Your task to perform on an android device: toggle pop-ups in chrome Image 0: 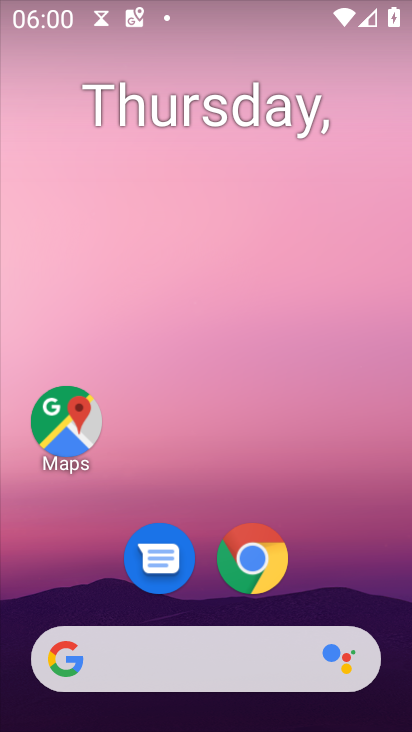
Step 0: drag from (313, 589) to (243, 135)
Your task to perform on an android device: toggle pop-ups in chrome Image 1: 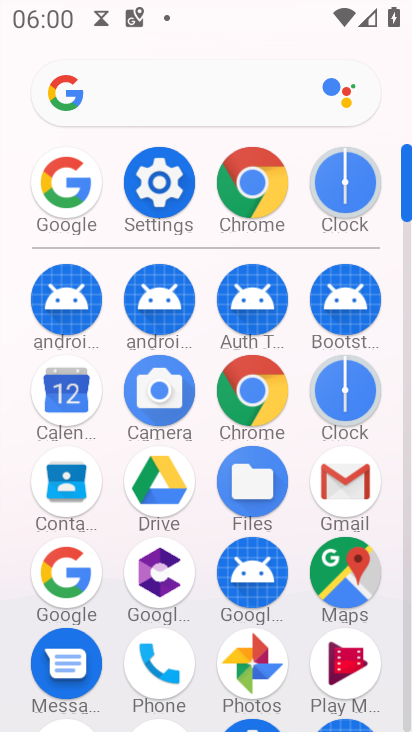
Step 1: click (245, 202)
Your task to perform on an android device: toggle pop-ups in chrome Image 2: 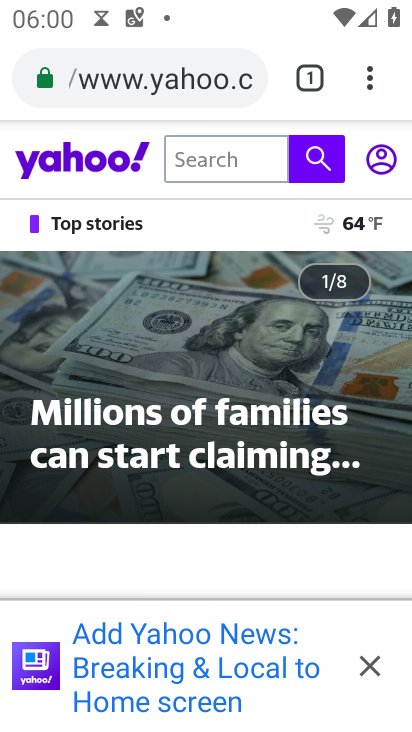
Step 2: click (367, 78)
Your task to perform on an android device: toggle pop-ups in chrome Image 3: 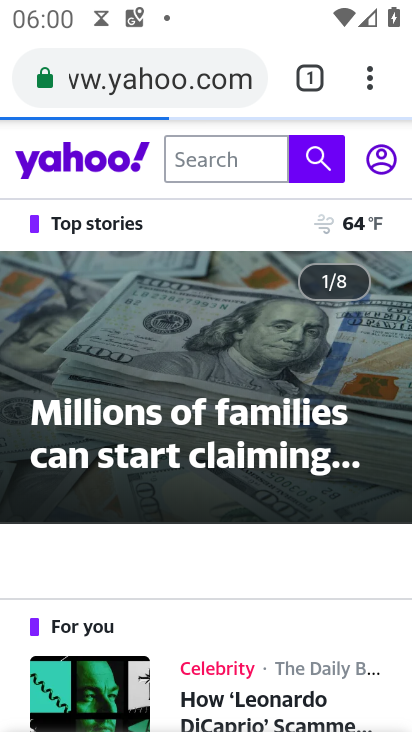
Step 3: click (369, 81)
Your task to perform on an android device: toggle pop-ups in chrome Image 4: 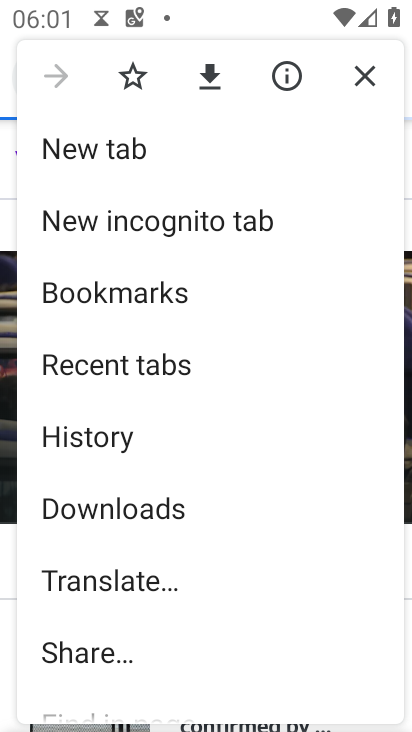
Step 4: drag from (162, 616) to (134, 291)
Your task to perform on an android device: toggle pop-ups in chrome Image 5: 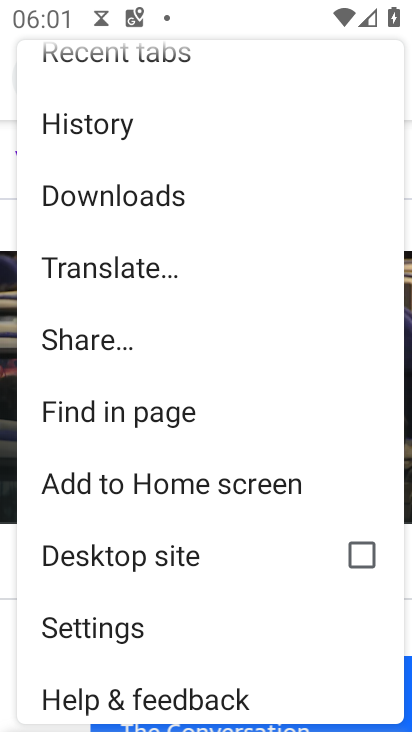
Step 5: click (110, 631)
Your task to perform on an android device: toggle pop-ups in chrome Image 6: 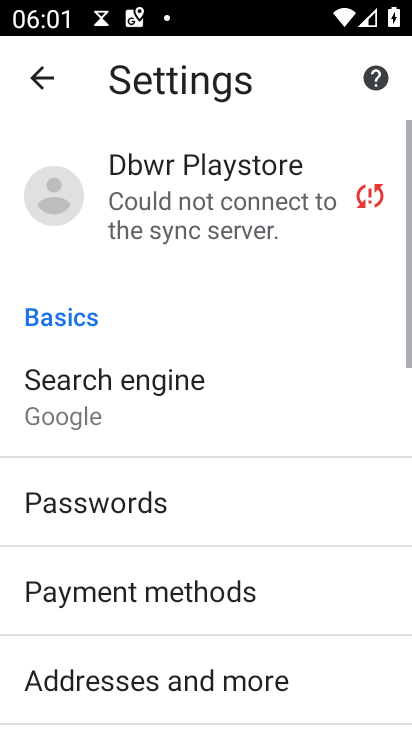
Step 6: drag from (110, 687) to (130, 299)
Your task to perform on an android device: toggle pop-ups in chrome Image 7: 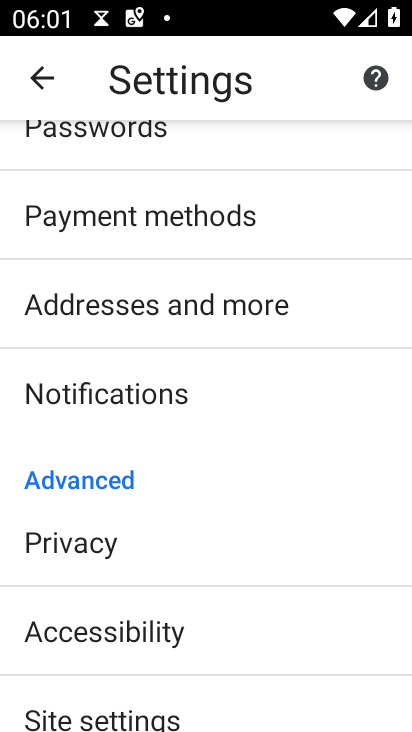
Step 7: drag from (160, 651) to (180, 345)
Your task to perform on an android device: toggle pop-ups in chrome Image 8: 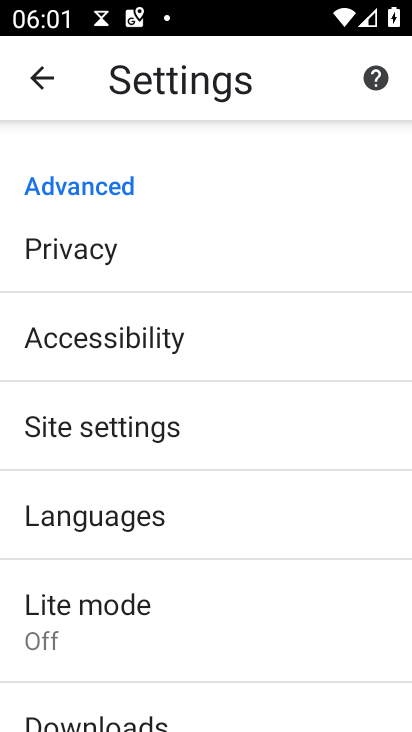
Step 8: click (95, 430)
Your task to perform on an android device: toggle pop-ups in chrome Image 9: 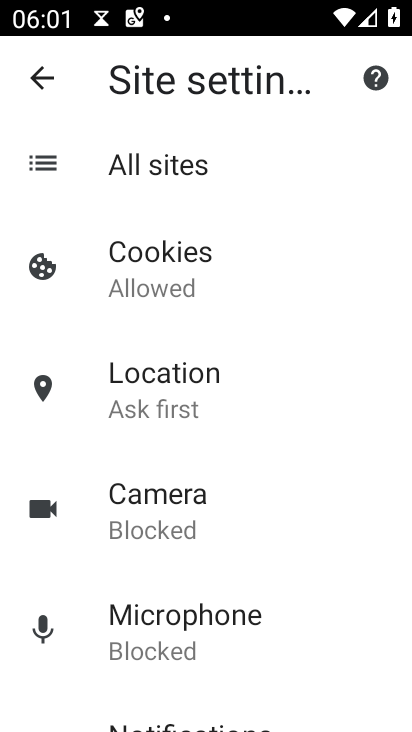
Step 9: drag from (210, 660) to (214, 270)
Your task to perform on an android device: toggle pop-ups in chrome Image 10: 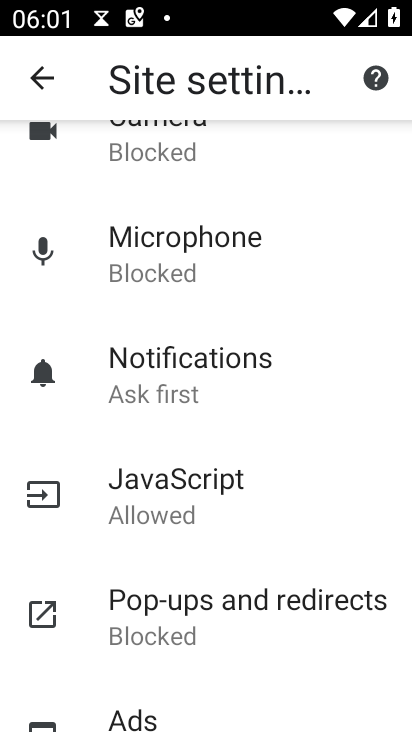
Step 10: click (212, 619)
Your task to perform on an android device: toggle pop-ups in chrome Image 11: 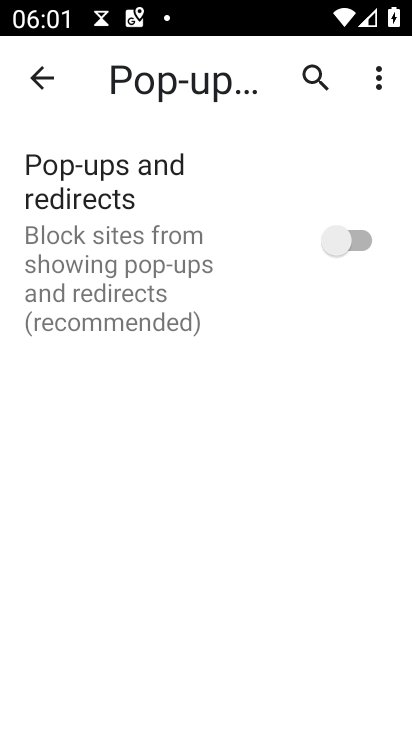
Step 11: click (366, 240)
Your task to perform on an android device: toggle pop-ups in chrome Image 12: 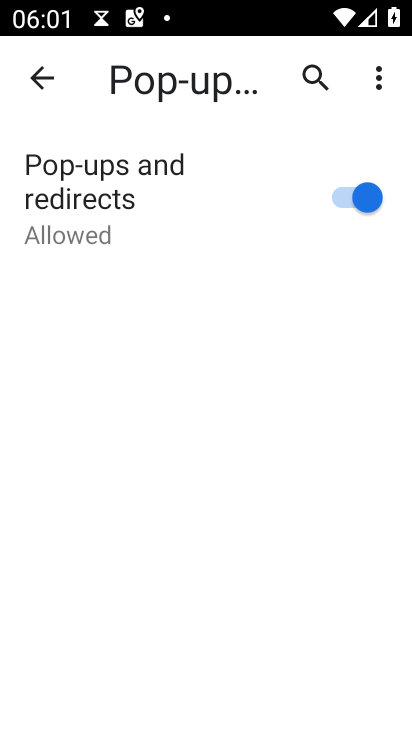
Step 12: click (361, 243)
Your task to perform on an android device: toggle pop-ups in chrome Image 13: 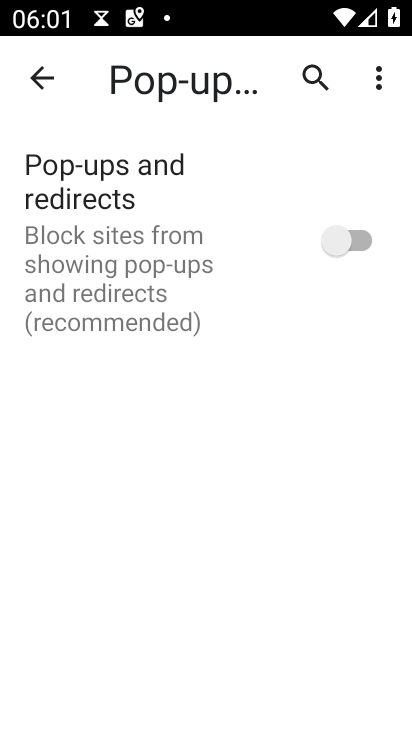
Step 13: task complete